Your task to perform on an android device: Clear the shopping cart on costco. Add "alienware area 51" to the cart on costco Image 0: 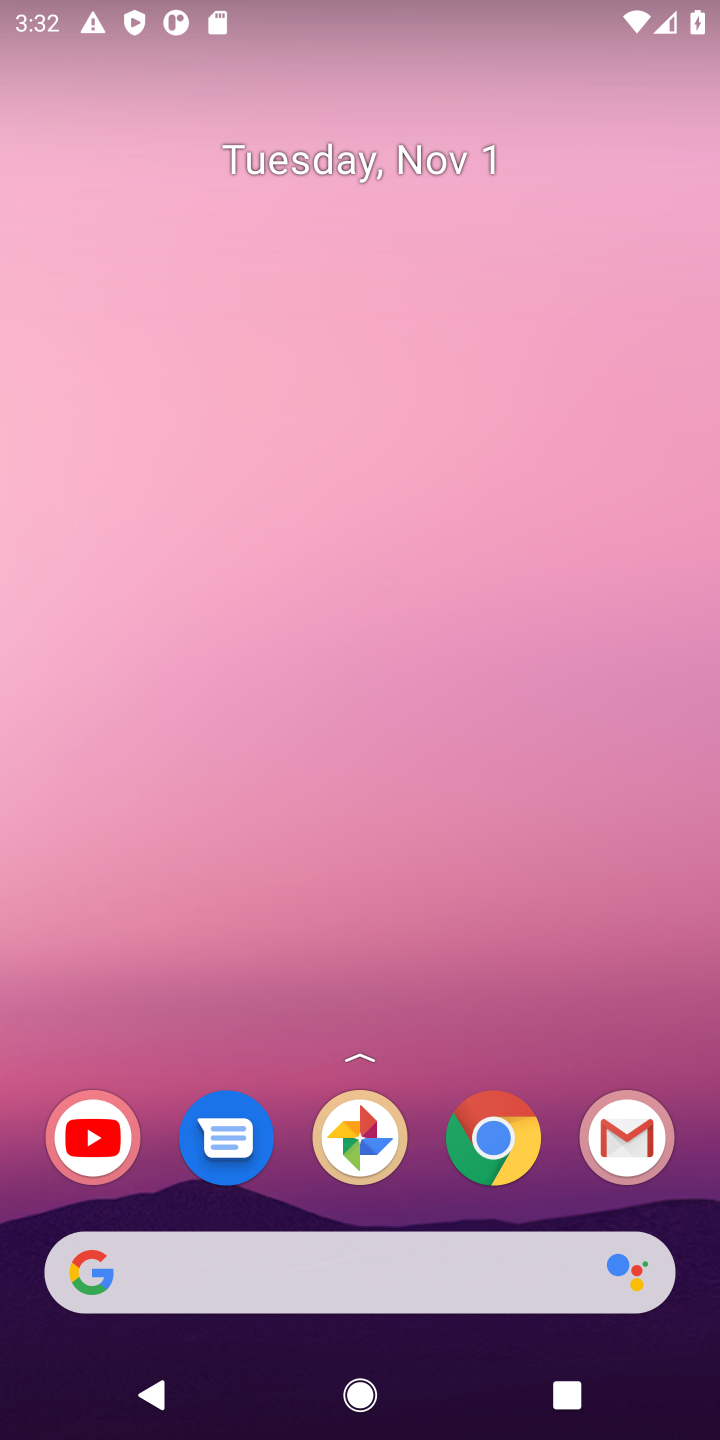
Step 0: click (500, 1148)
Your task to perform on an android device: Clear the shopping cart on costco. Add "alienware area 51" to the cart on costco Image 1: 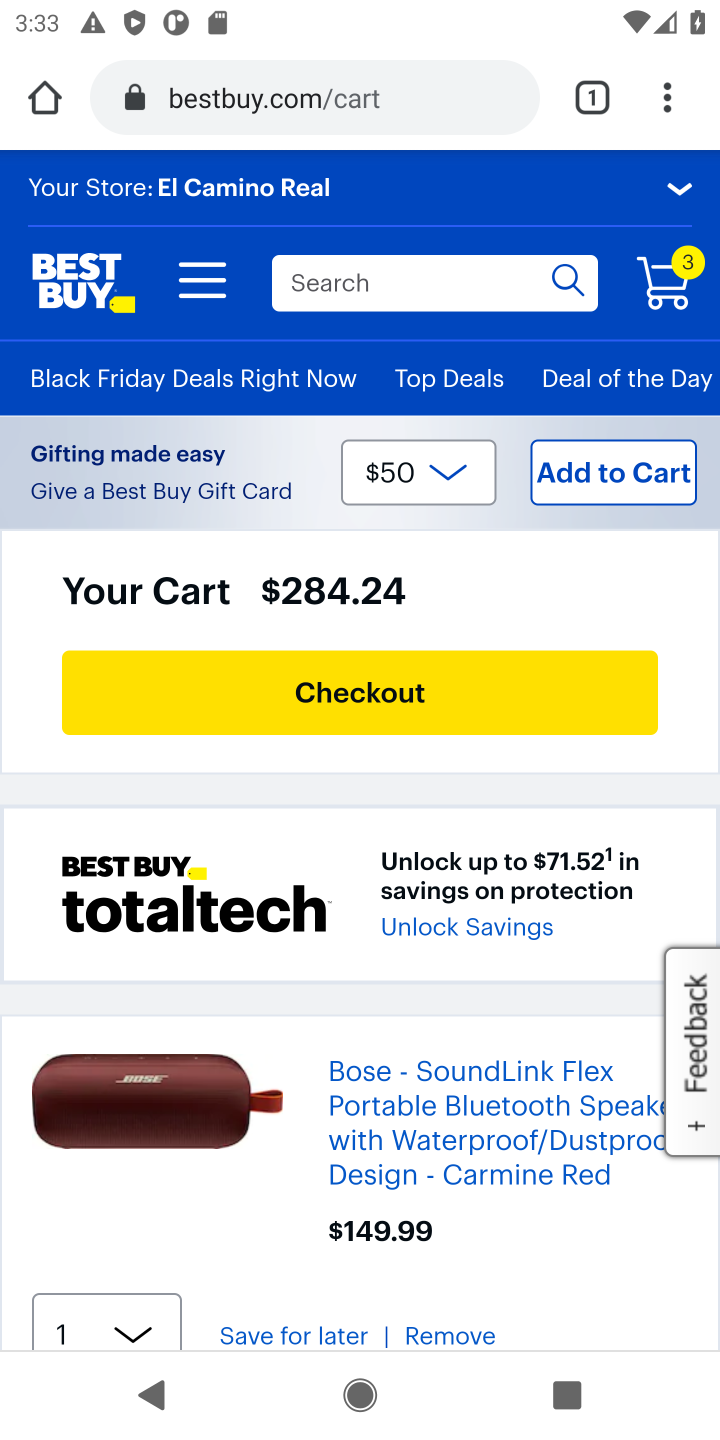
Step 1: click (265, 111)
Your task to perform on an android device: Clear the shopping cart on costco. Add "alienware area 51" to the cart on costco Image 2: 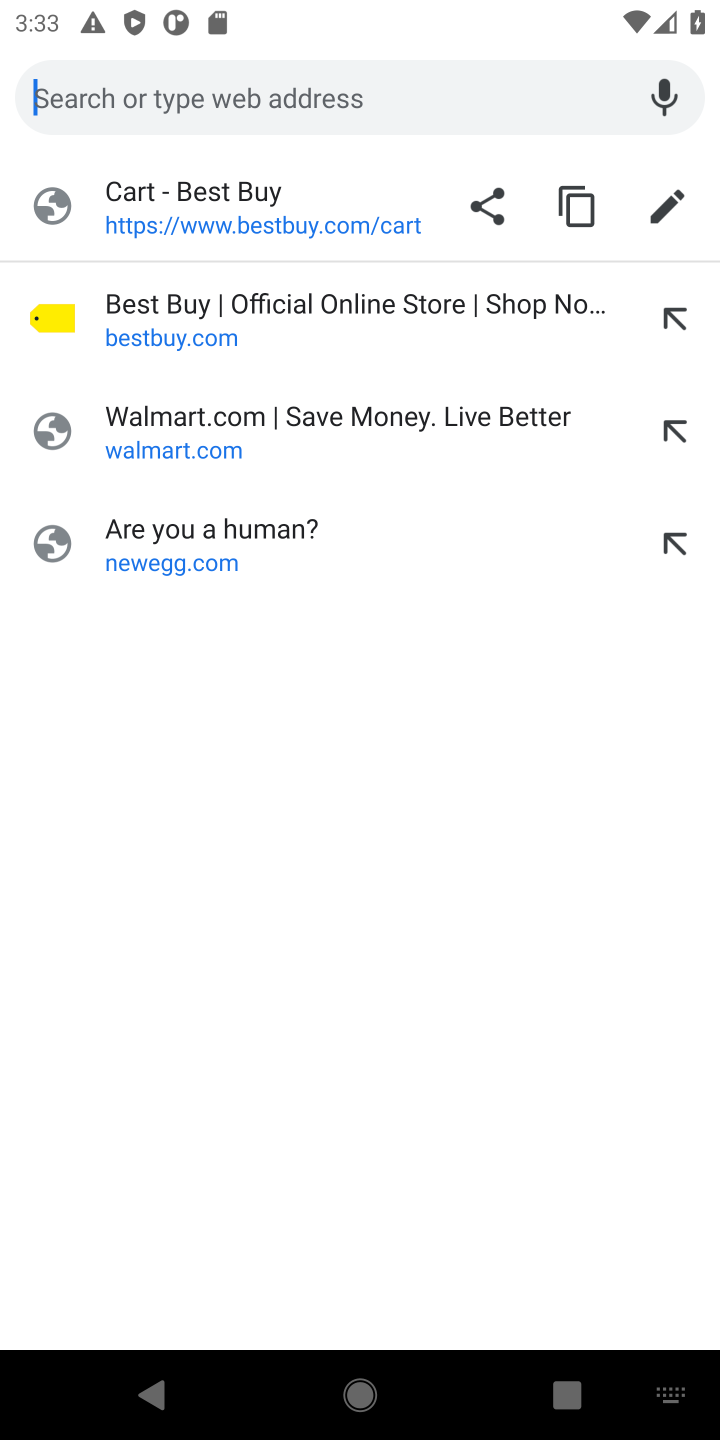
Step 2: type "costco"
Your task to perform on an android device: Clear the shopping cart on costco. Add "alienware area 51" to the cart on costco Image 3: 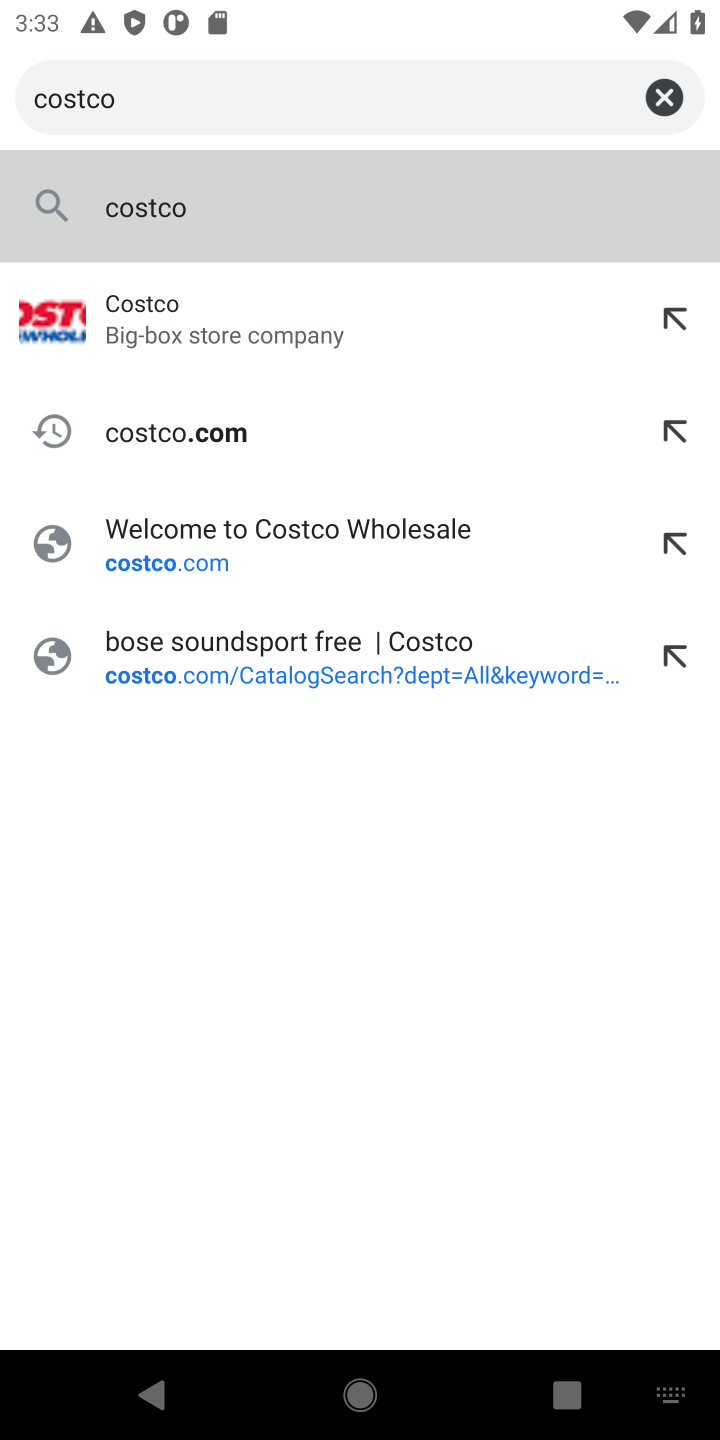
Step 3: click (208, 234)
Your task to perform on an android device: Clear the shopping cart on costco. Add "alienware area 51" to the cart on costco Image 4: 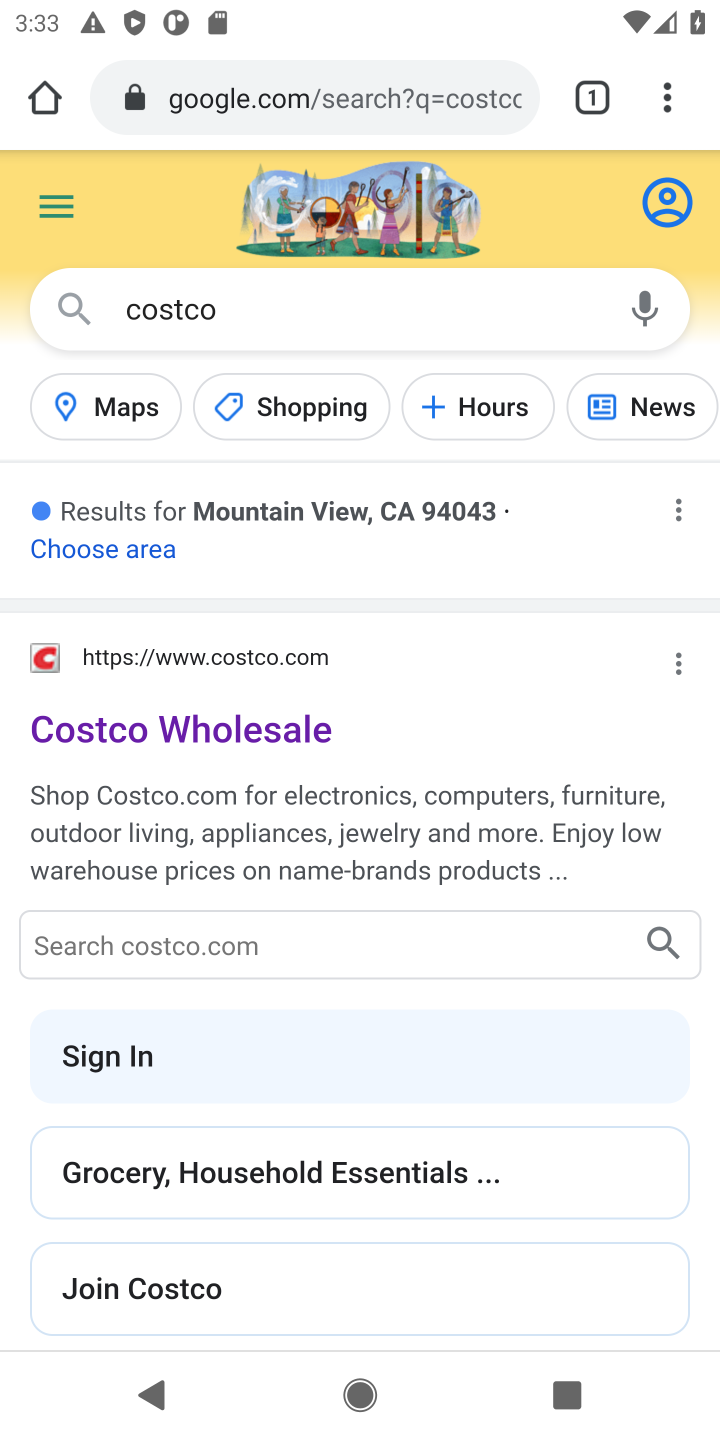
Step 4: click (236, 727)
Your task to perform on an android device: Clear the shopping cart on costco. Add "alienware area 51" to the cart on costco Image 5: 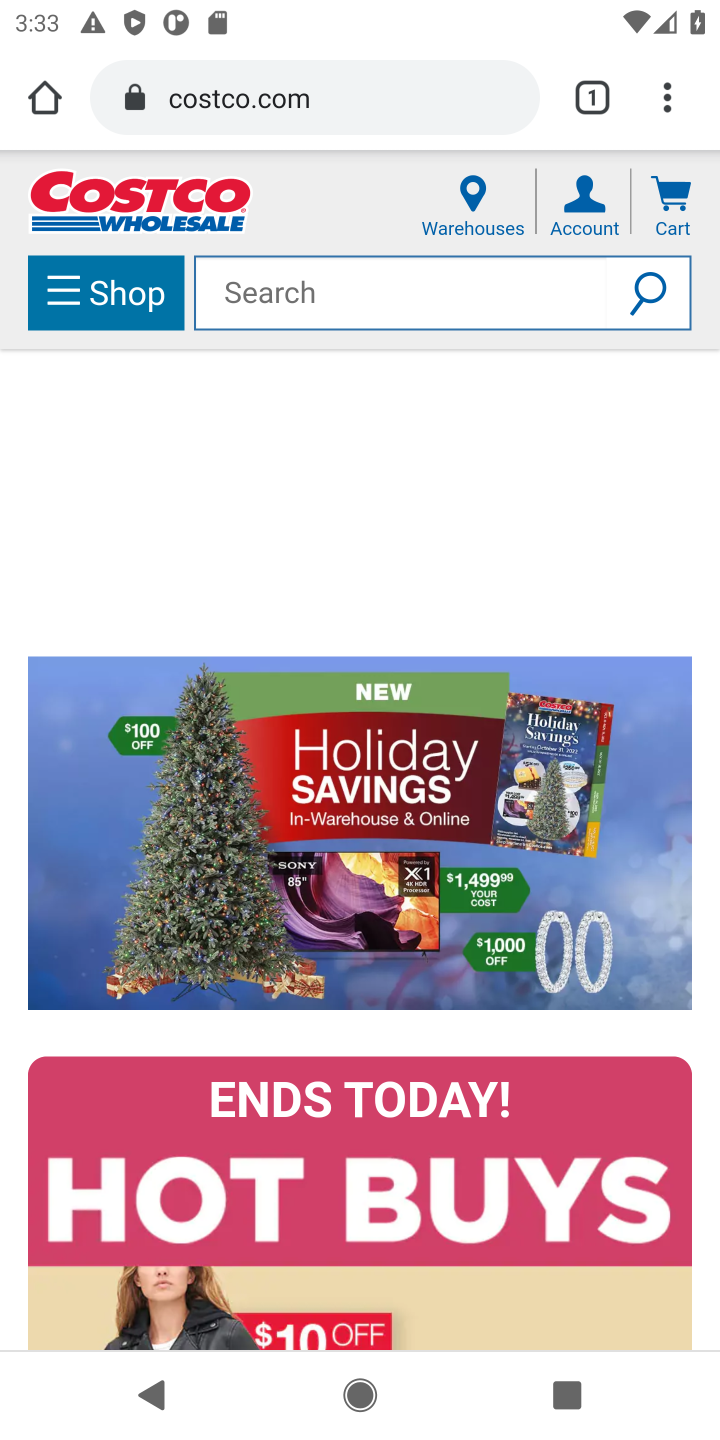
Step 5: click (396, 292)
Your task to perform on an android device: Clear the shopping cart on costco. Add "alienware area 51" to the cart on costco Image 6: 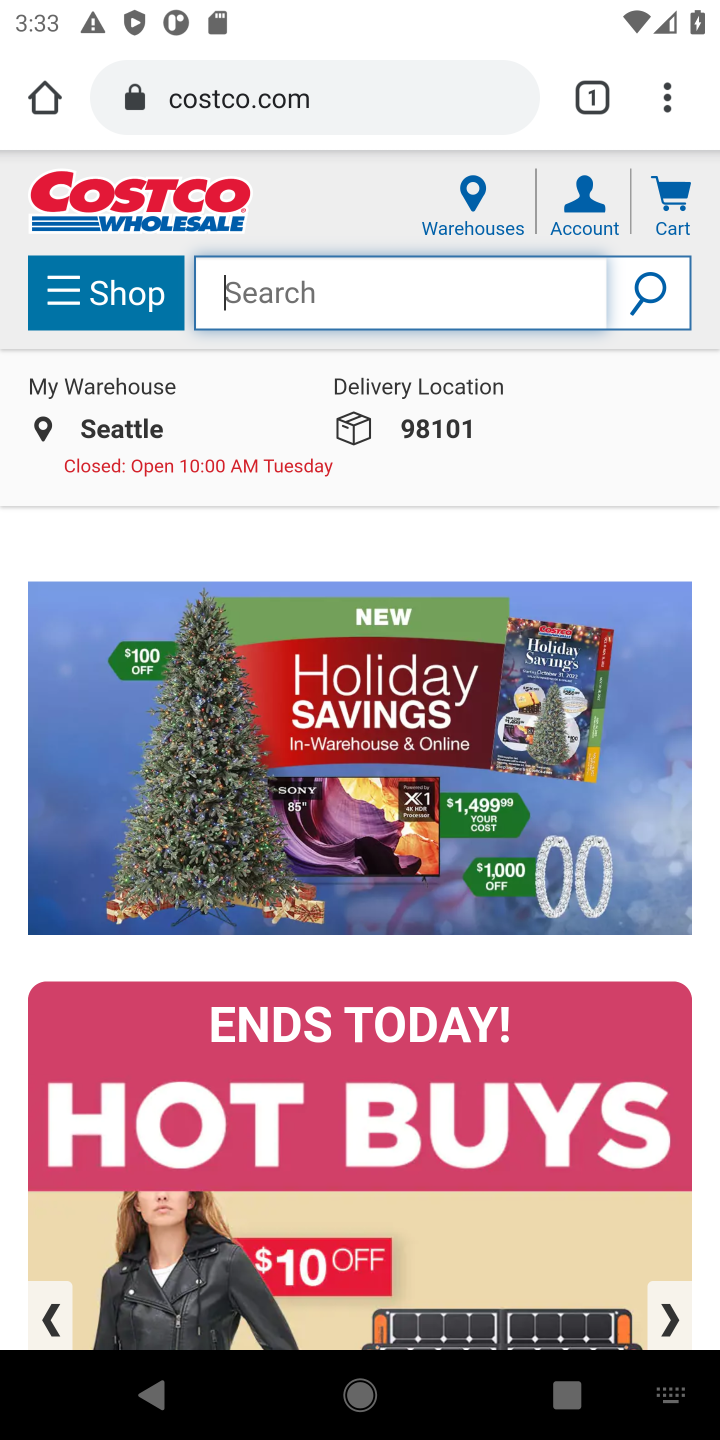
Step 6: type "alienware area 51"
Your task to perform on an android device: Clear the shopping cart on costco. Add "alienware area 51" to the cart on costco Image 7: 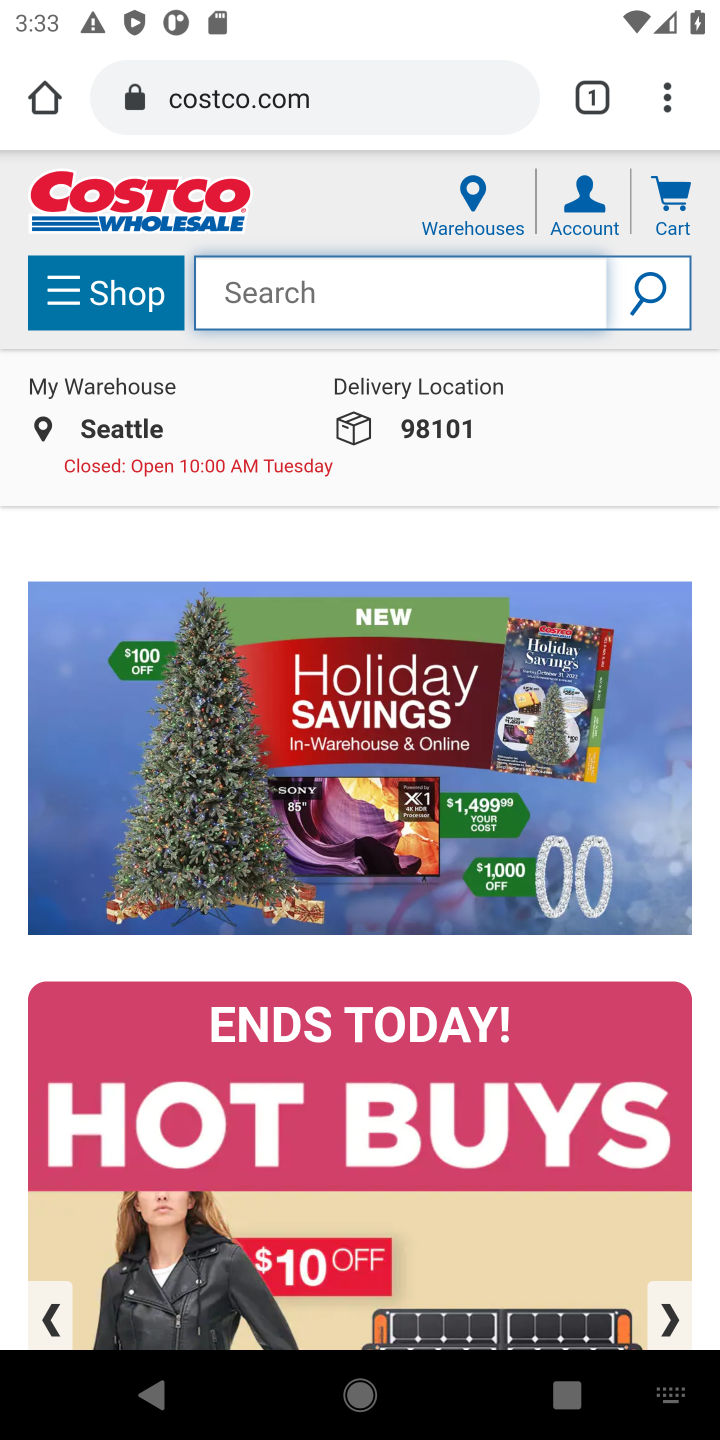
Step 7: click (529, 291)
Your task to perform on an android device: Clear the shopping cart on costco. Add "alienware area 51" to the cart on costco Image 8: 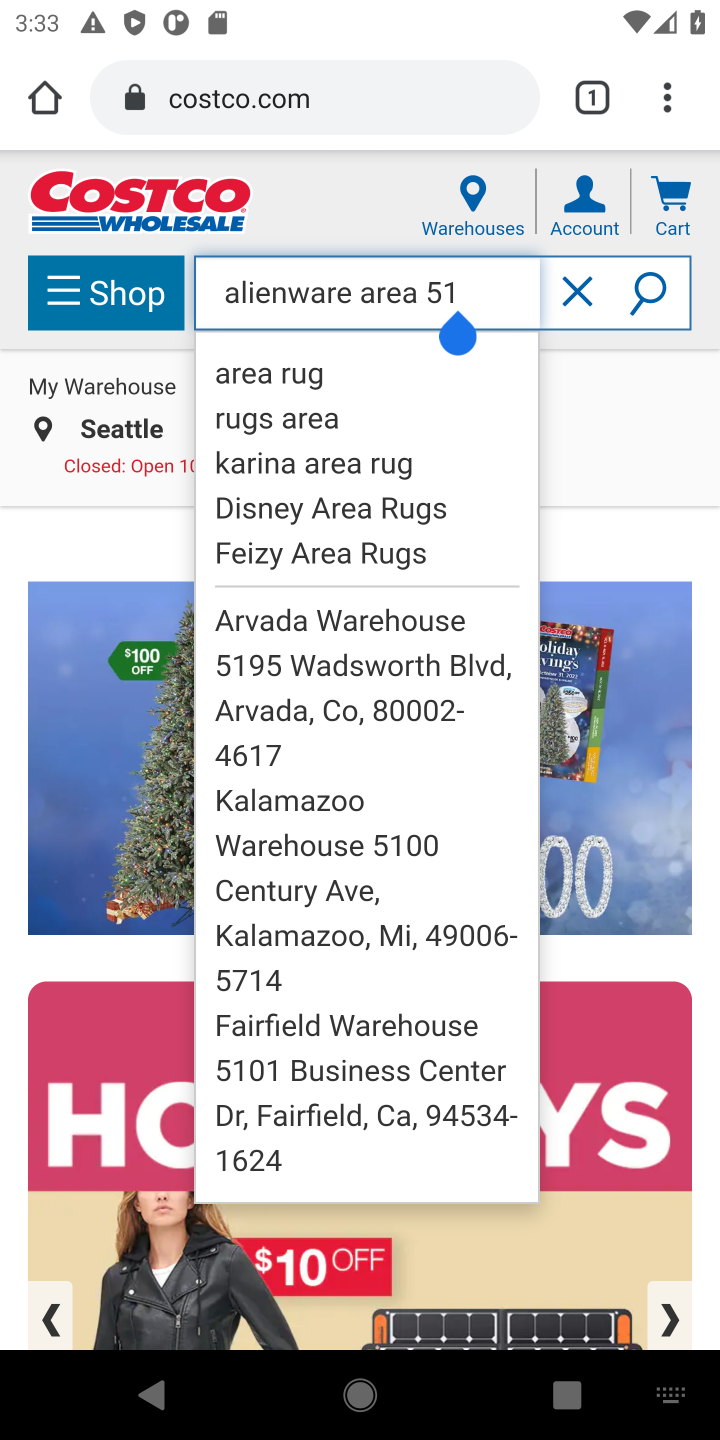
Step 8: click (648, 290)
Your task to perform on an android device: Clear the shopping cart on costco. Add "alienware area 51" to the cart on costco Image 9: 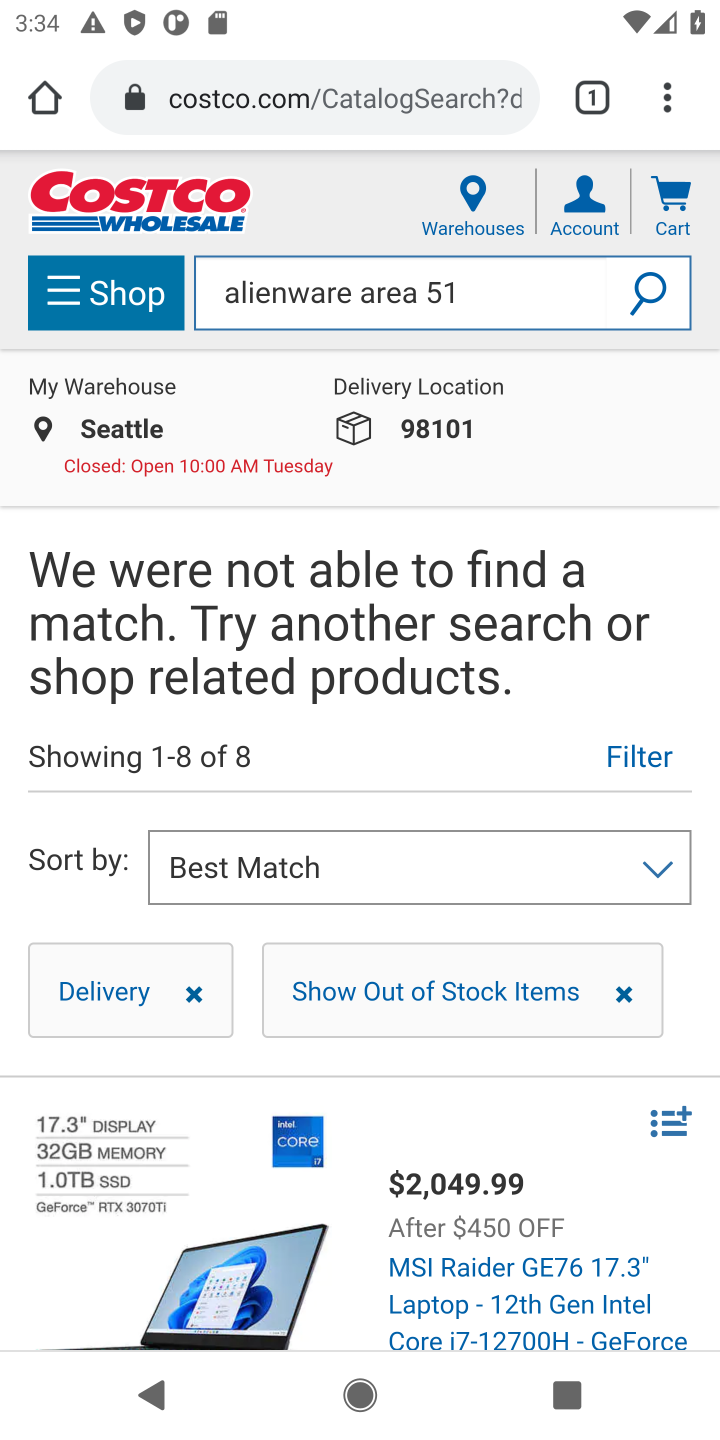
Step 9: task complete